Your task to perform on an android device: Open eBay Image 0: 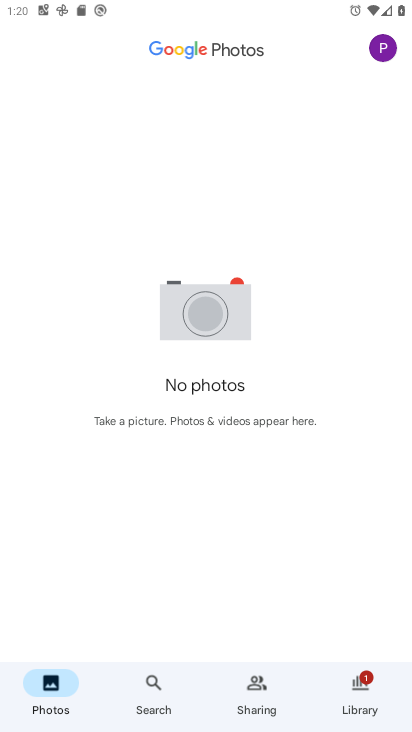
Step 0: press home button
Your task to perform on an android device: Open eBay Image 1: 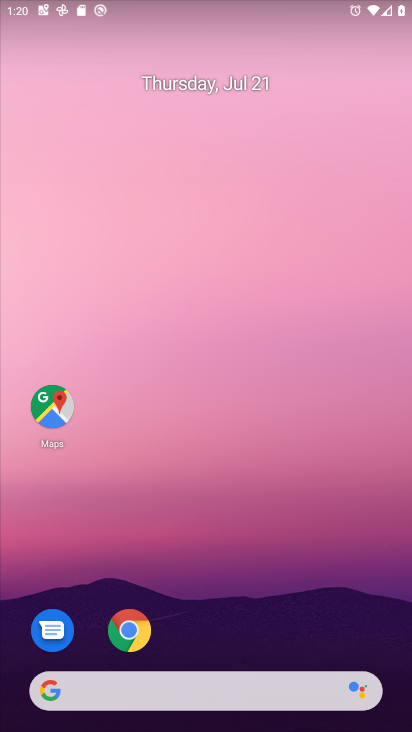
Step 1: click (154, 692)
Your task to perform on an android device: Open eBay Image 2: 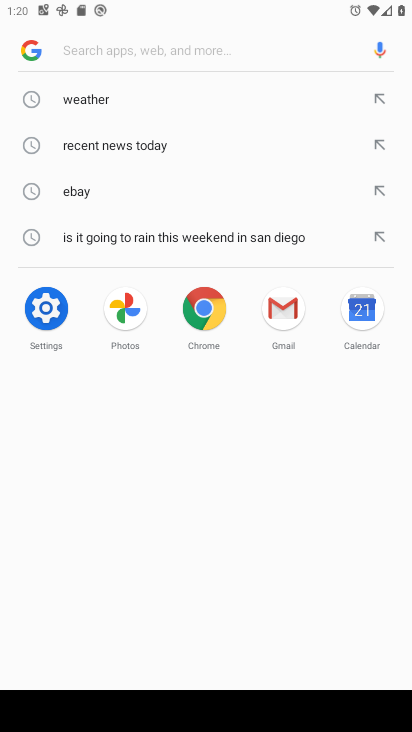
Step 2: click (139, 187)
Your task to perform on an android device: Open eBay Image 3: 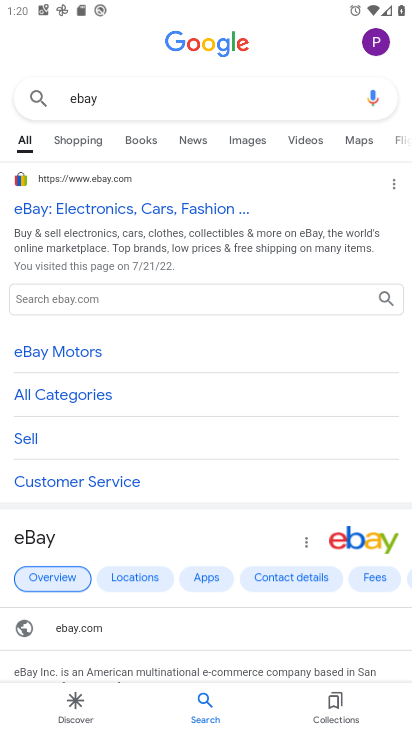
Step 3: click (40, 201)
Your task to perform on an android device: Open eBay Image 4: 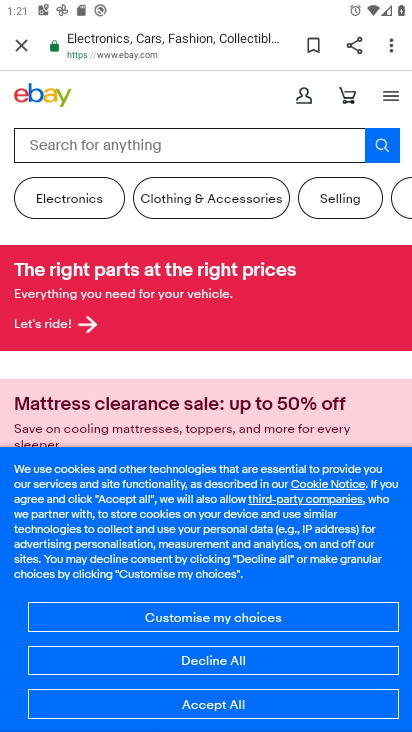
Step 4: task complete